Your task to perform on an android device: turn pop-ups off in chrome Image 0: 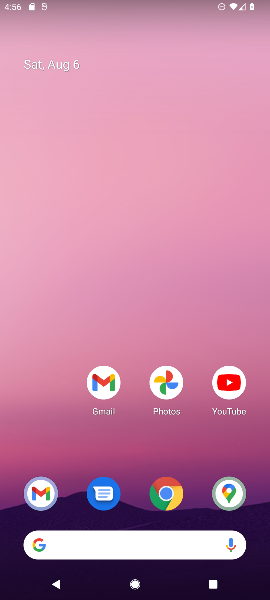
Step 0: drag from (165, 573) to (110, 97)
Your task to perform on an android device: turn pop-ups off in chrome Image 1: 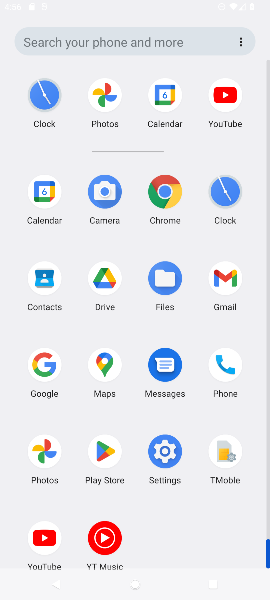
Step 1: drag from (183, 530) to (165, 174)
Your task to perform on an android device: turn pop-ups off in chrome Image 2: 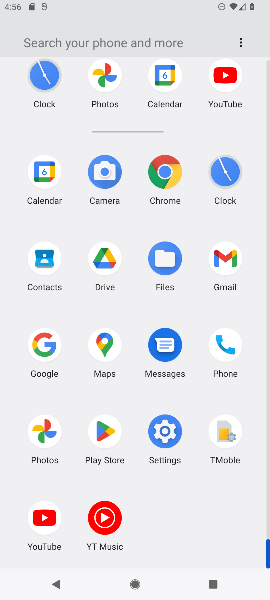
Step 2: click (173, 159)
Your task to perform on an android device: turn pop-ups off in chrome Image 3: 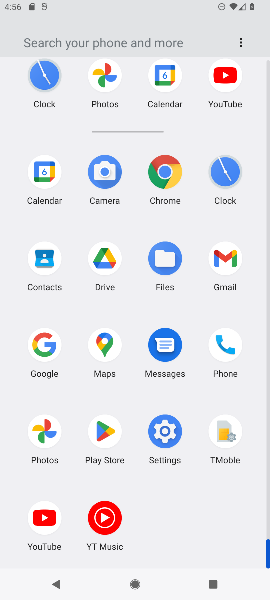
Step 3: click (168, 164)
Your task to perform on an android device: turn pop-ups off in chrome Image 4: 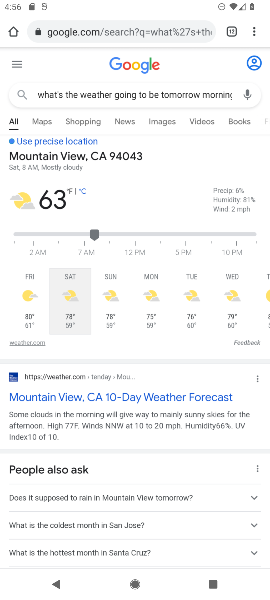
Step 4: click (168, 166)
Your task to perform on an android device: turn pop-ups off in chrome Image 5: 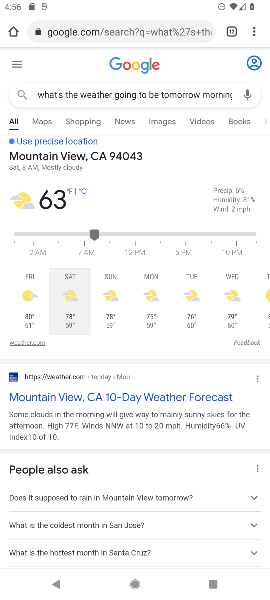
Step 5: drag from (250, 28) to (163, 413)
Your task to perform on an android device: turn pop-ups off in chrome Image 6: 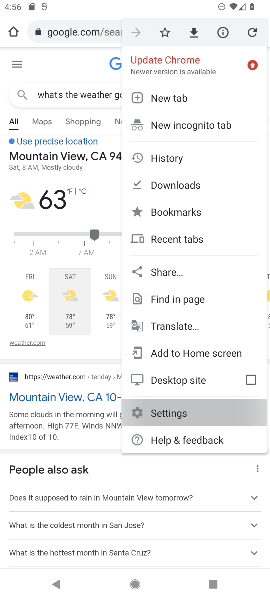
Step 6: click (165, 414)
Your task to perform on an android device: turn pop-ups off in chrome Image 7: 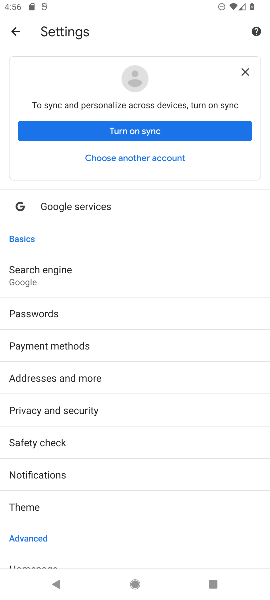
Step 7: drag from (72, 425) to (45, 181)
Your task to perform on an android device: turn pop-ups off in chrome Image 8: 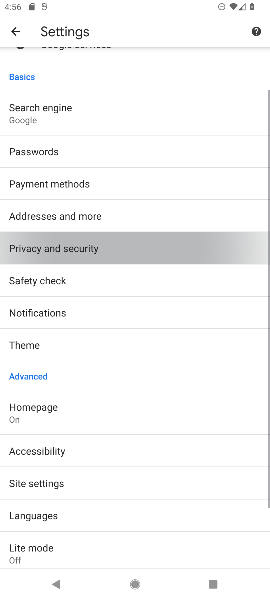
Step 8: drag from (85, 419) to (89, 255)
Your task to perform on an android device: turn pop-ups off in chrome Image 9: 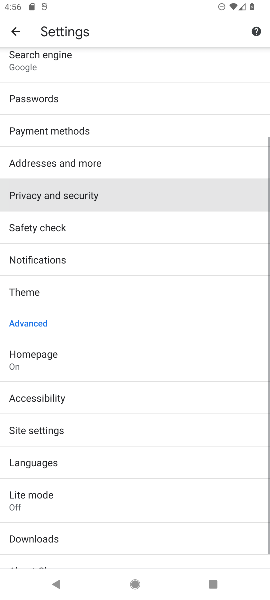
Step 9: drag from (126, 435) to (122, 235)
Your task to perform on an android device: turn pop-ups off in chrome Image 10: 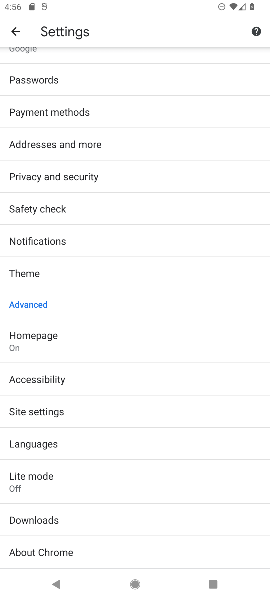
Step 10: click (29, 412)
Your task to perform on an android device: turn pop-ups off in chrome Image 11: 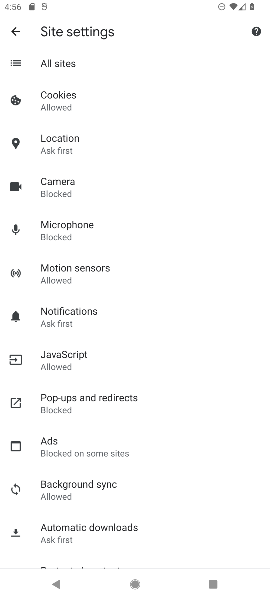
Step 11: click (67, 399)
Your task to perform on an android device: turn pop-ups off in chrome Image 12: 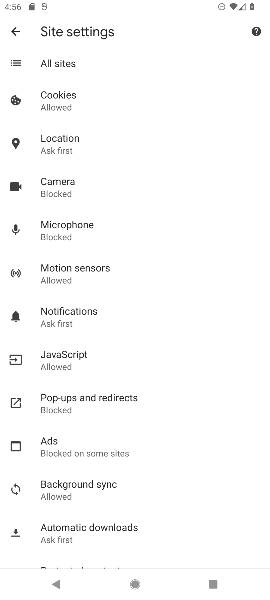
Step 12: click (67, 399)
Your task to perform on an android device: turn pop-ups off in chrome Image 13: 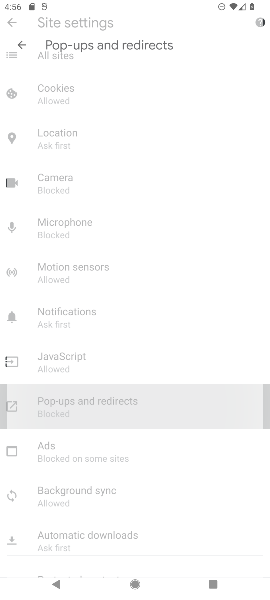
Step 13: click (67, 399)
Your task to perform on an android device: turn pop-ups off in chrome Image 14: 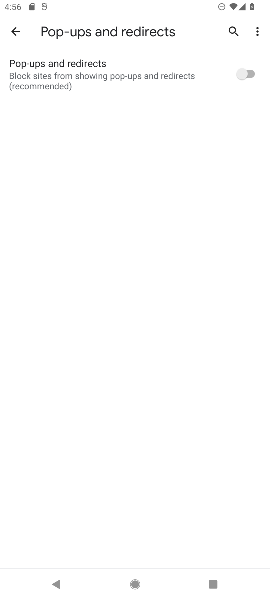
Step 14: task complete